Your task to perform on an android device: Go to notification settings Image 0: 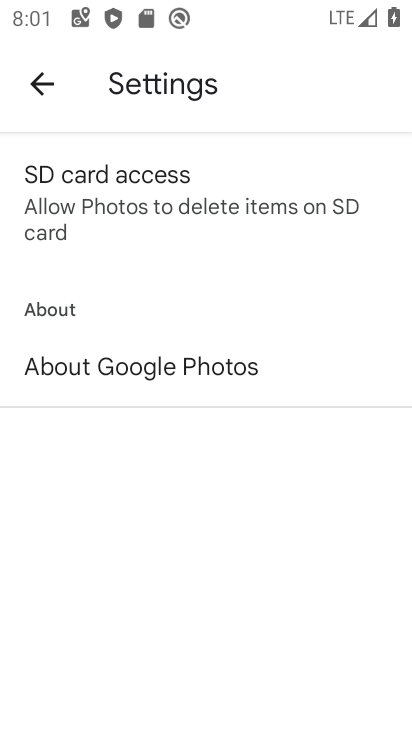
Step 0: drag from (342, 573) to (271, 222)
Your task to perform on an android device: Go to notification settings Image 1: 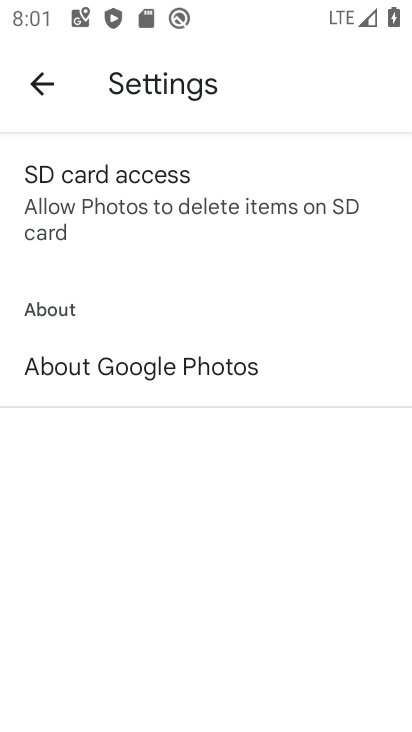
Step 1: press home button
Your task to perform on an android device: Go to notification settings Image 2: 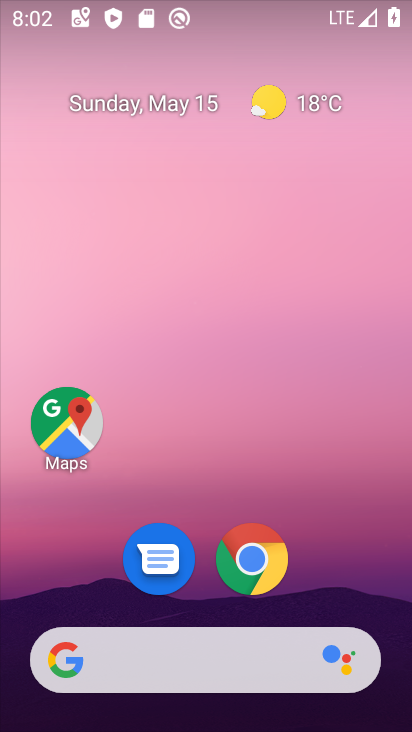
Step 2: drag from (358, 560) to (261, 122)
Your task to perform on an android device: Go to notification settings Image 3: 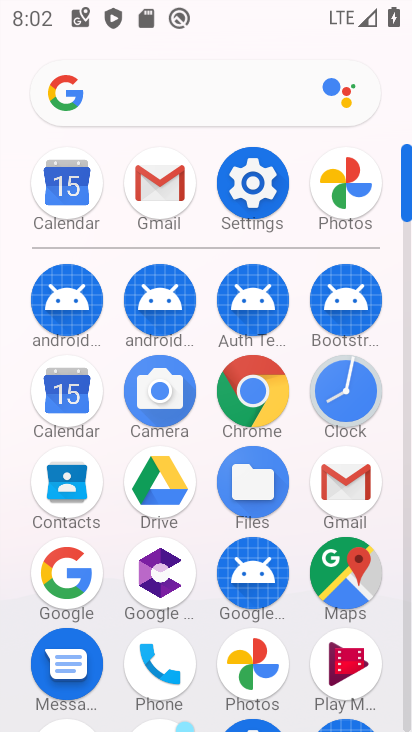
Step 3: click (242, 191)
Your task to perform on an android device: Go to notification settings Image 4: 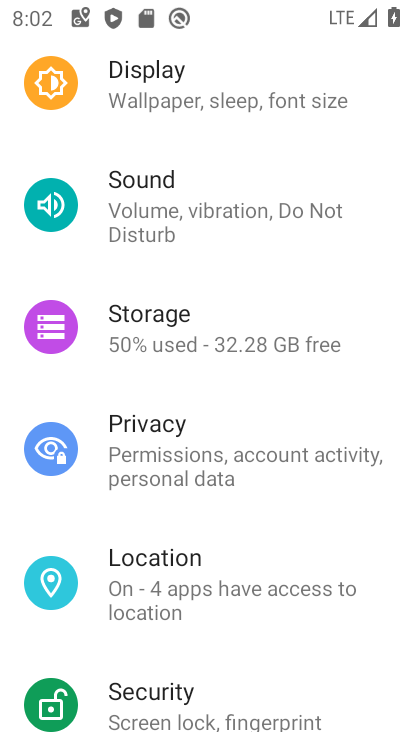
Step 4: drag from (273, 298) to (252, 717)
Your task to perform on an android device: Go to notification settings Image 5: 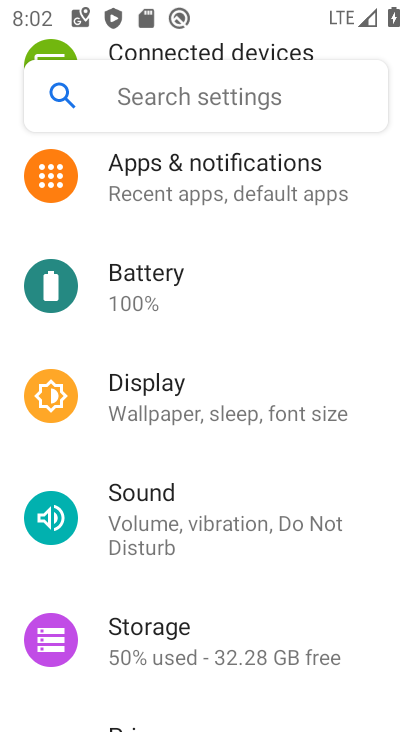
Step 5: click (211, 162)
Your task to perform on an android device: Go to notification settings Image 6: 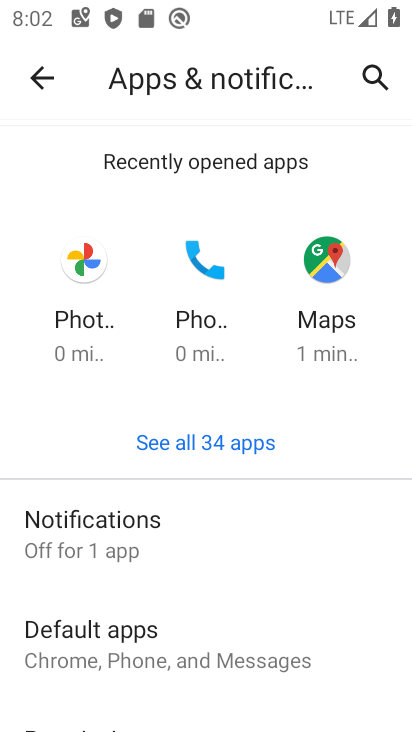
Step 6: task complete